Your task to perform on an android device: Open calendar and show me the second week of next month Image 0: 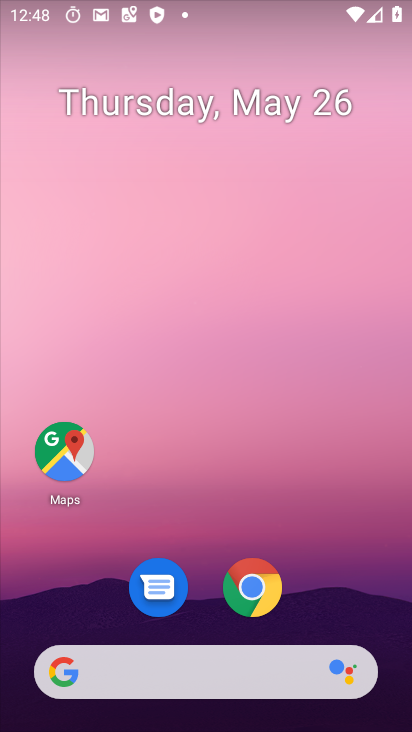
Step 0: press home button
Your task to perform on an android device: Open calendar and show me the second week of next month Image 1: 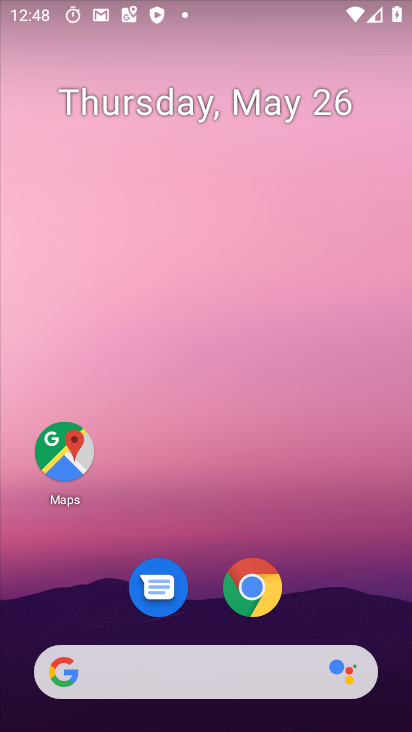
Step 1: drag from (282, 687) to (322, 83)
Your task to perform on an android device: Open calendar and show me the second week of next month Image 2: 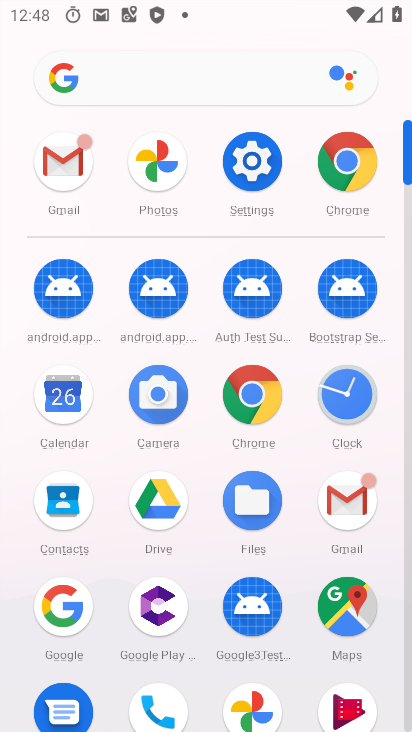
Step 2: click (77, 401)
Your task to perform on an android device: Open calendar and show me the second week of next month Image 3: 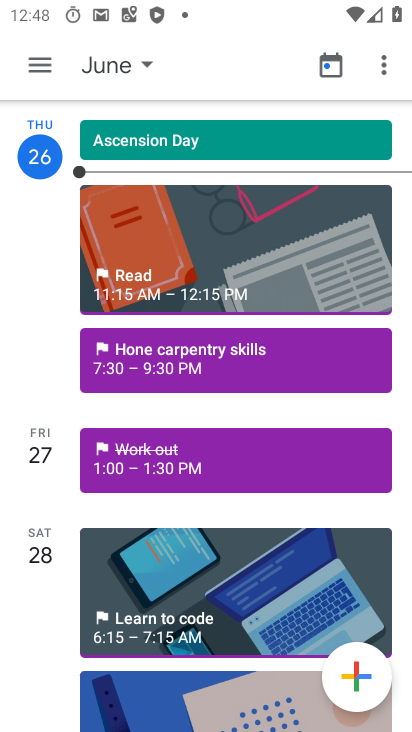
Step 3: click (35, 84)
Your task to perform on an android device: Open calendar and show me the second week of next month Image 4: 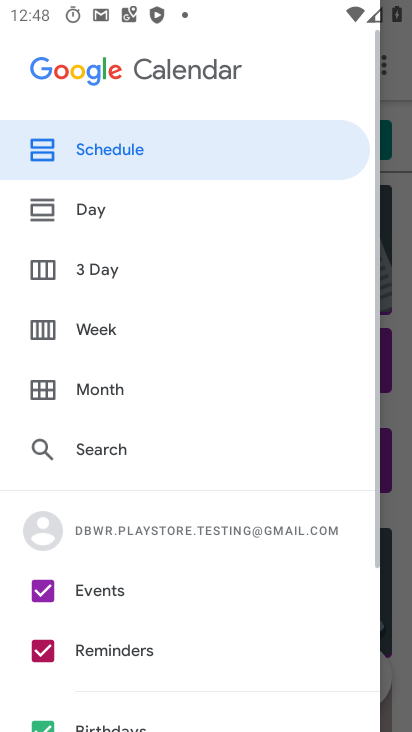
Step 4: click (92, 393)
Your task to perform on an android device: Open calendar and show me the second week of next month Image 5: 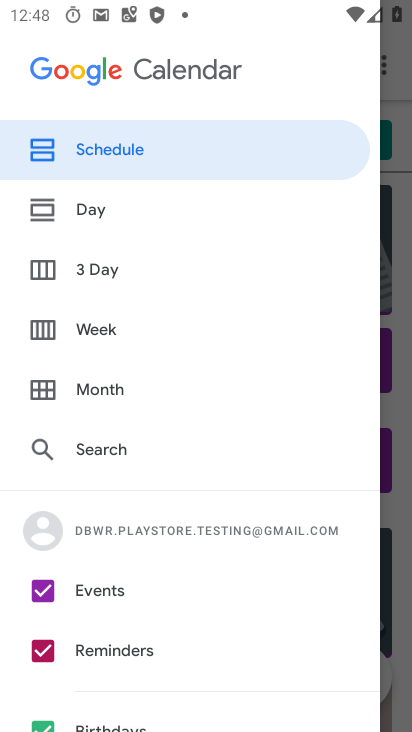
Step 5: click (93, 404)
Your task to perform on an android device: Open calendar and show me the second week of next month Image 6: 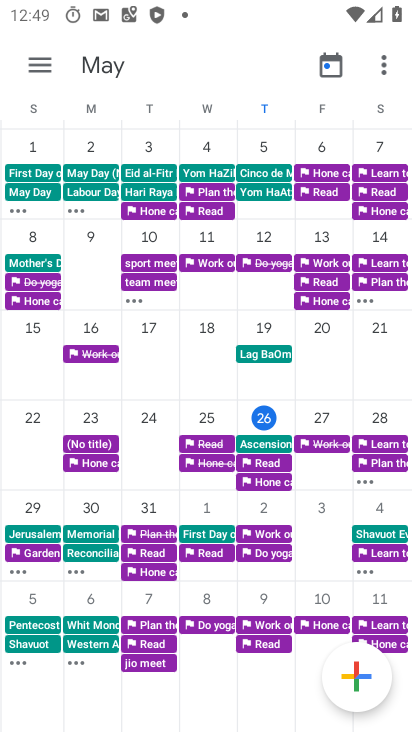
Step 6: drag from (66, 410) to (409, 334)
Your task to perform on an android device: Open calendar and show me the second week of next month Image 7: 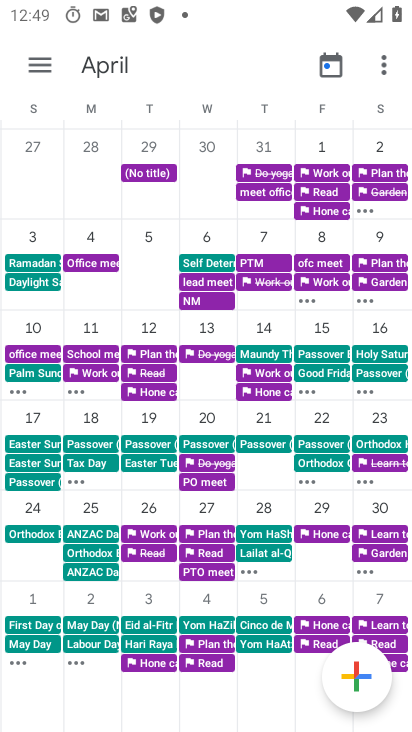
Step 7: click (130, 270)
Your task to perform on an android device: Open calendar and show me the second week of next month Image 8: 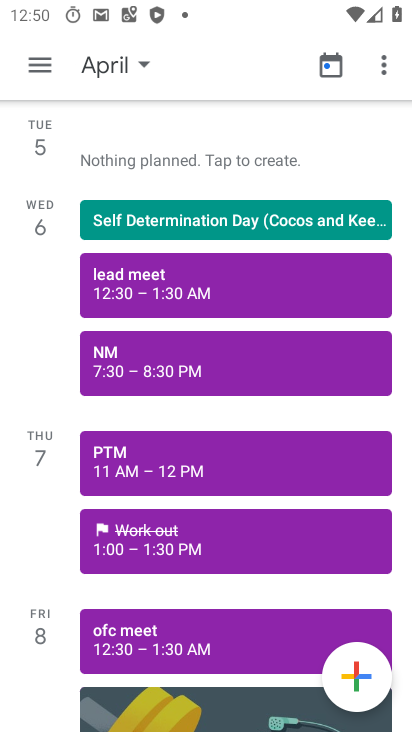
Step 8: task complete